Your task to perform on an android device: Toggle the flashlight Image 0: 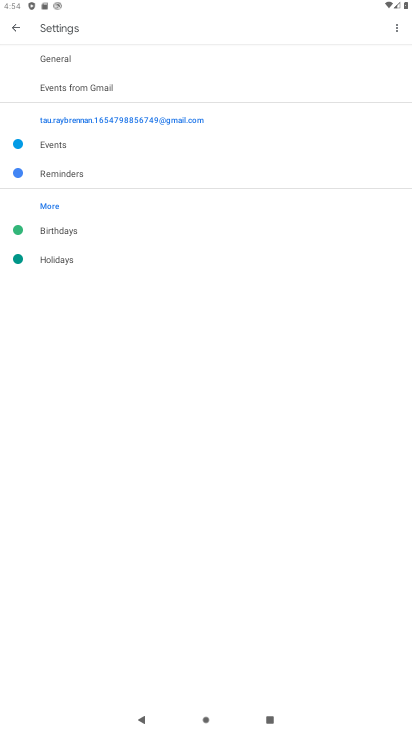
Step 0: press home button
Your task to perform on an android device: Toggle the flashlight Image 1: 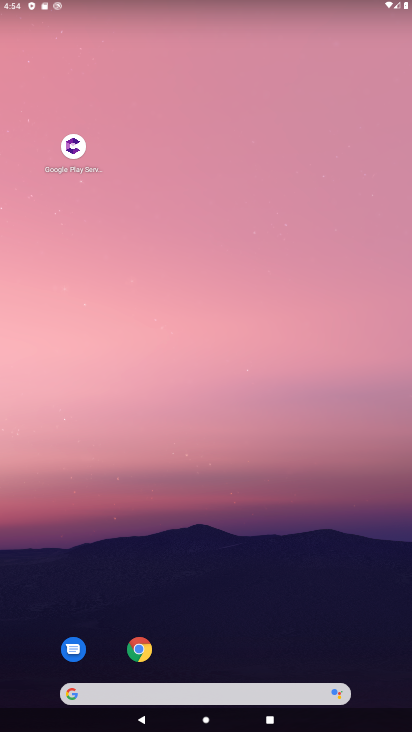
Step 1: drag from (167, 706) to (220, 302)
Your task to perform on an android device: Toggle the flashlight Image 2: 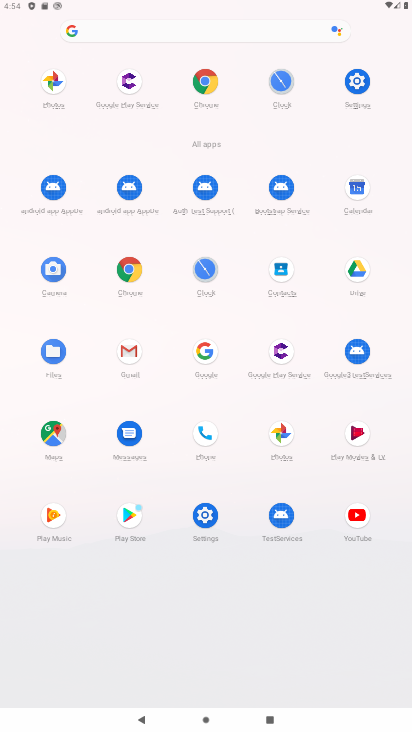
Step 2: click (206, 514)
Your task to perform on an android device: Toggle the flashlight Image 3: 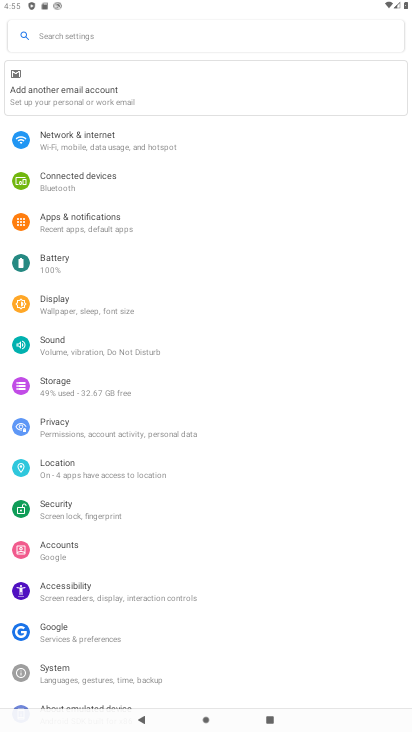
Step 3: click (98, 152)
Your task to perform on an android device: Toggle the flashlight Image 4: 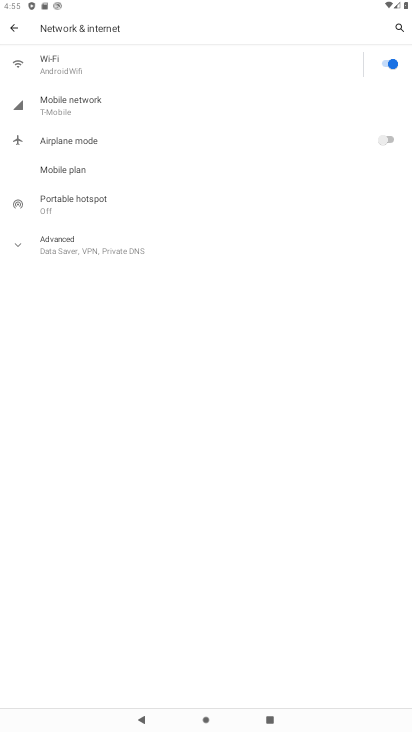
Step 4: press back button
Your task to perform on an android device: Toggle the flashlight Image 5: 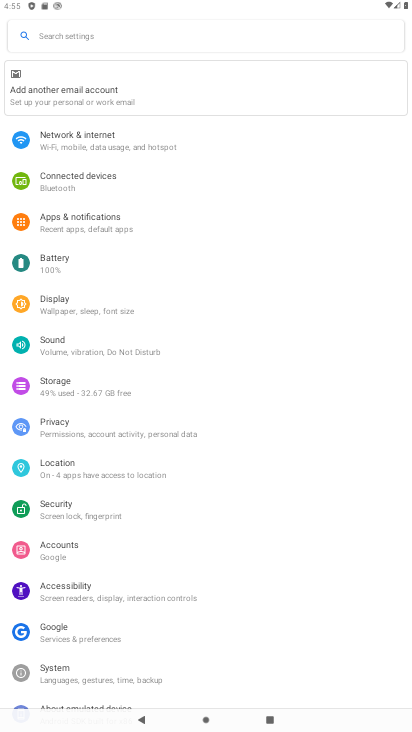
Step 5: click (106, 296)
Your task to perform on an android device: Toggle the flashlight Image 6: 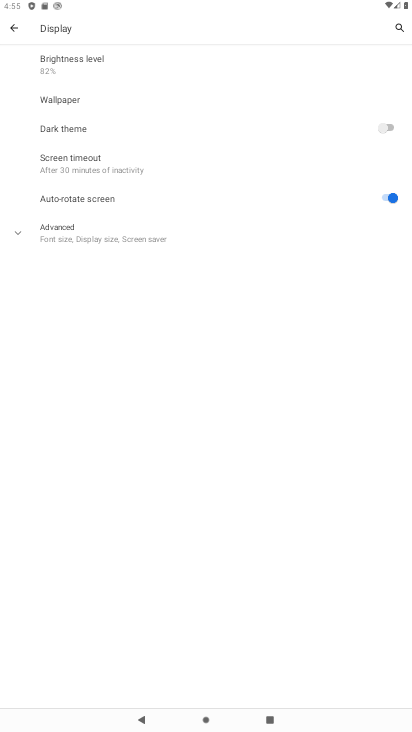
Step 6: task complete